Your task to perform on an android device: Open Youtube and go to "Your channel" Image 0: 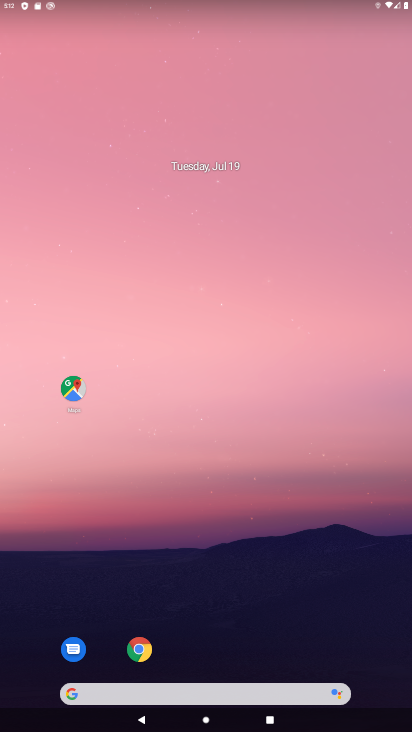
Step 0: drag from (313, 572) to (303, 45)
Your task to perform on an android device: Open Youtube and go to "Your channel" Image 1: 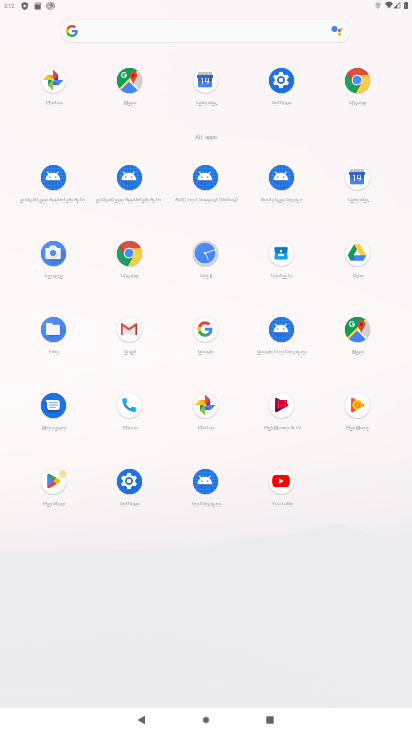
Step 1: click (288, 481)
Your task to perform on an android device: Open Youtube and go to "Your channel" Image 2: 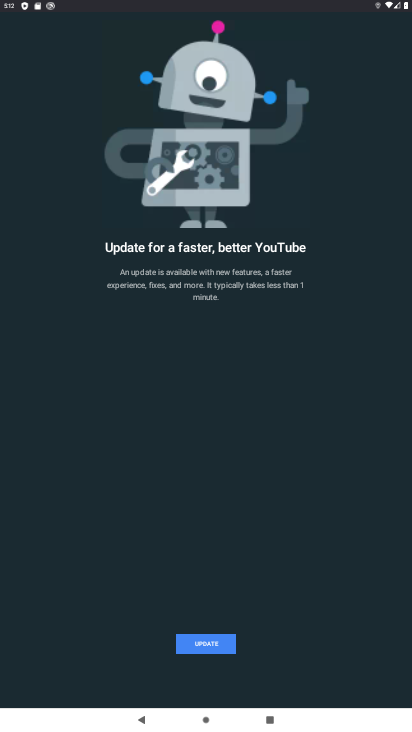
Step 2: click (210, 643)
Your task to perform on an android device: Open Youtube and go to "Your channel" Image 3: 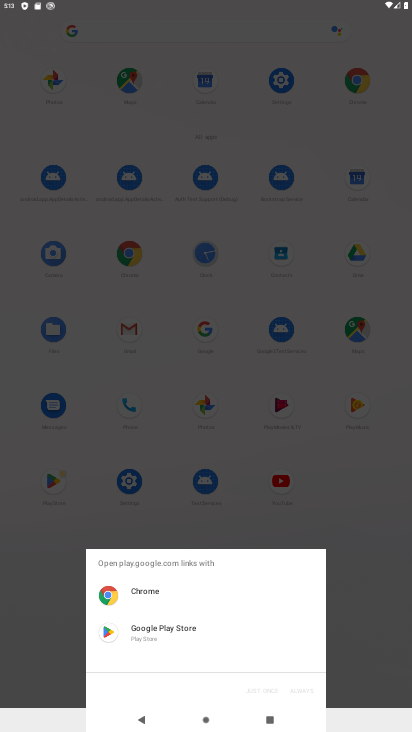
Step 3: click (167, 635)
Your task to perform on an android device: Open Youtube and go to "Your channel" Image 4: 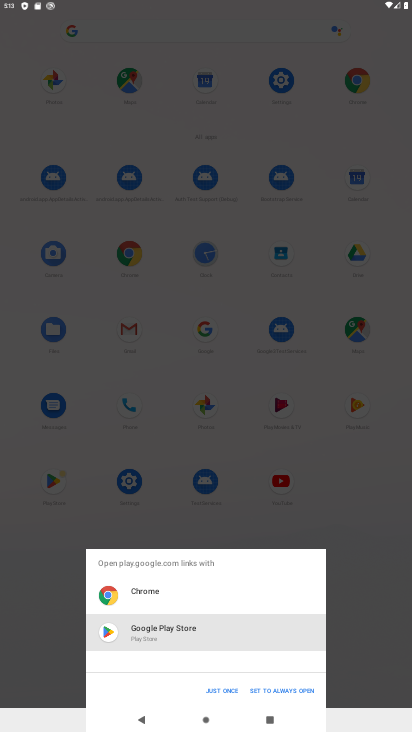
Step 4: click (207, 691)
Your task to perform on an android device: Open Youtube and go to "Your channel" Image 5: 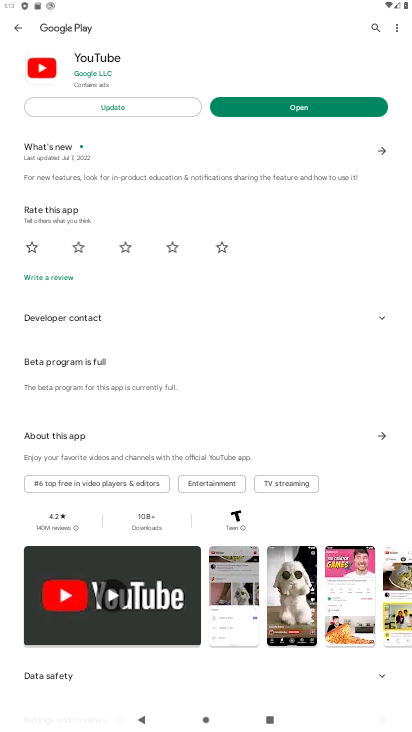
Step 5: click (63, 106)
Your task to perform on an android device: Open Youtube and go to "Your channel" Image 6: 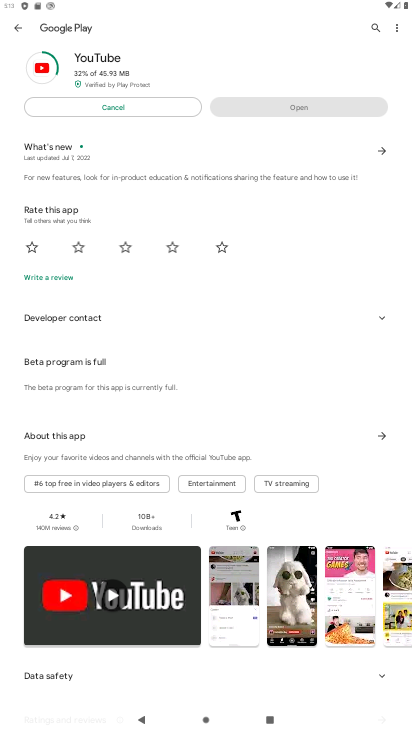
Step 6: task complete